Your task to perform on an android device: turn off notifications in google photos Image 0: 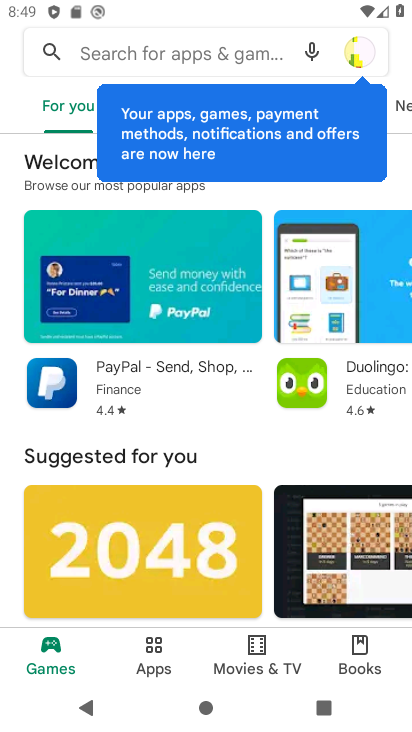
Step 0: press home button
Your task to perform on an android device: turn off notifications in google photos Image 1: 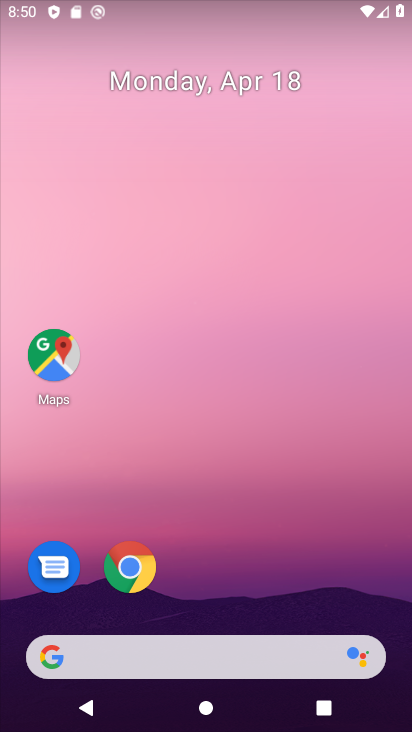
Step 1: drag from (207, 403) to (202, 40)
Your task to perform on an android device: turn off notifications in google photos Image 2: 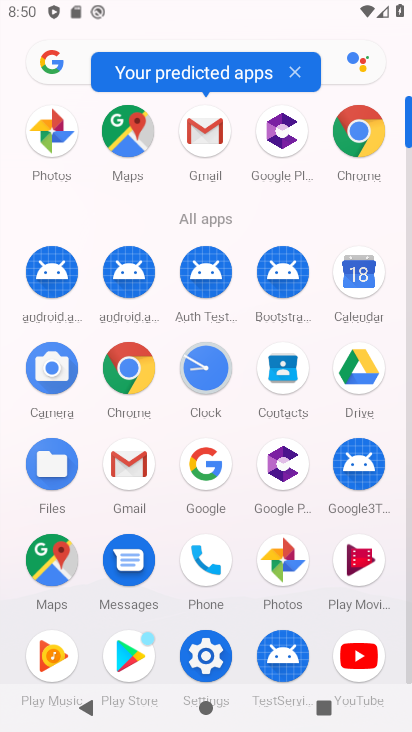
Step 2: click (289, 564)
Your task to perform on an android device: turn off notifications in google photos Image 3: 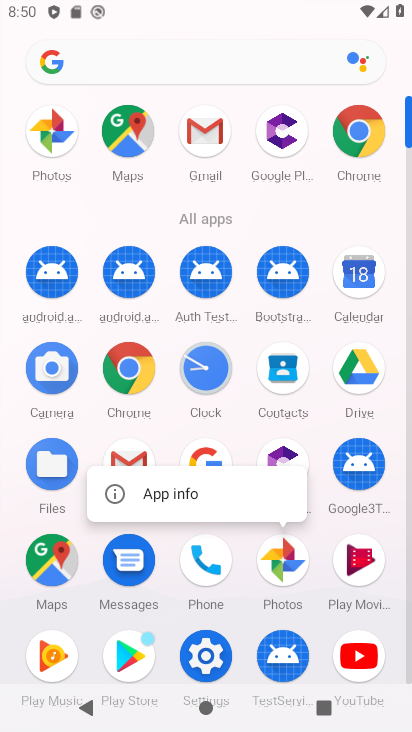
Step 3: click (289, 563)
Your task to perform on an android device: turn off notifications in google photos Image 4: 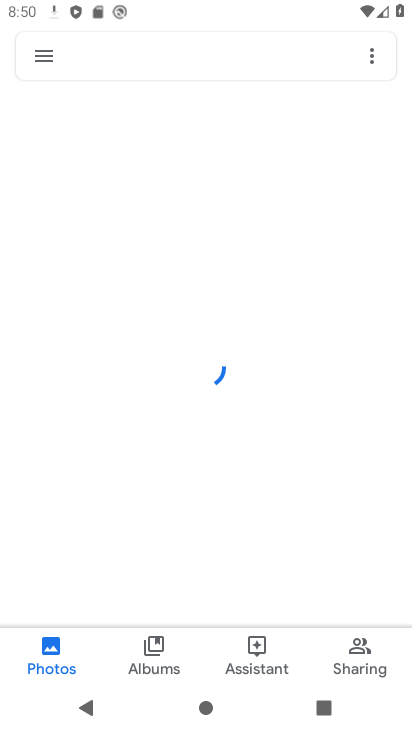
Step 4: click (49, 54)
Your task to perform on an android device: turn off notifications in google photos Image 5: 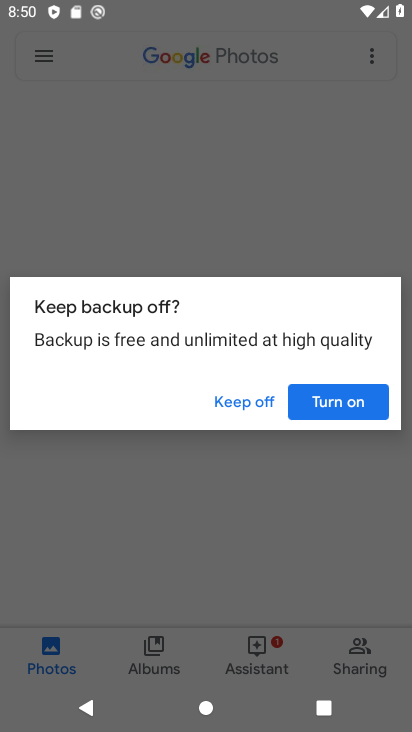
Step 5: click (325, 405)
Your task to perform on an android device: turn off notifications in google photos Image 6: 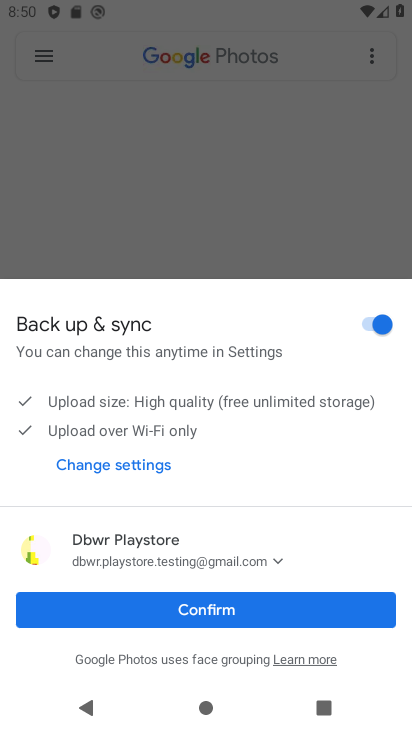
Step 6: click (251, 603)
Your task to perform on an android device: turn off notifications in google photos Image 7: 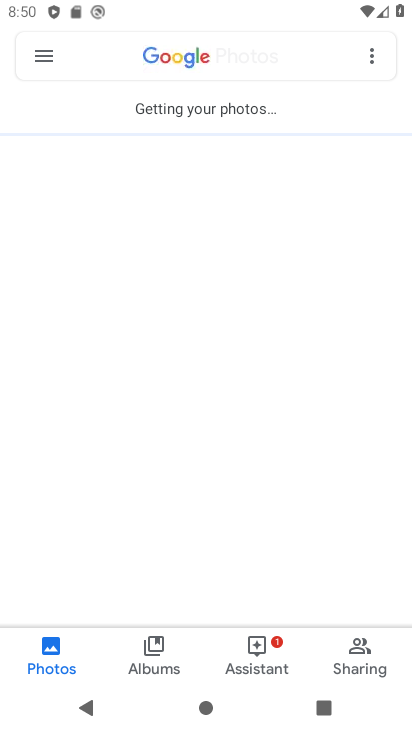
Step 7: click (39, 53)
Your task to perform on an android device: turn off notifications in google photos Image 8: 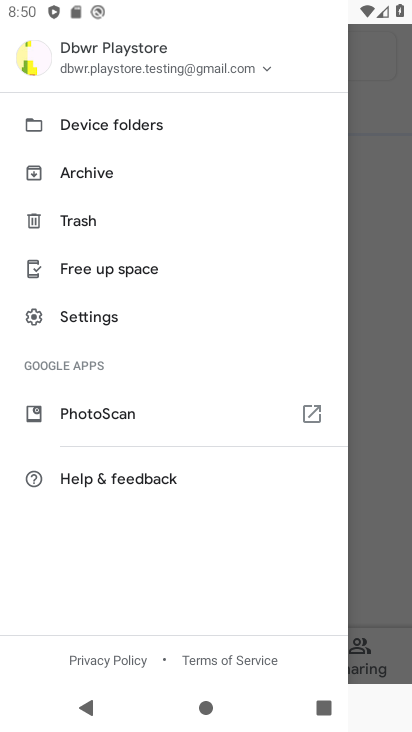
Step 8: click (103, 316)
Your task to perform on an android device: turn off notifications in google photos Image 9: 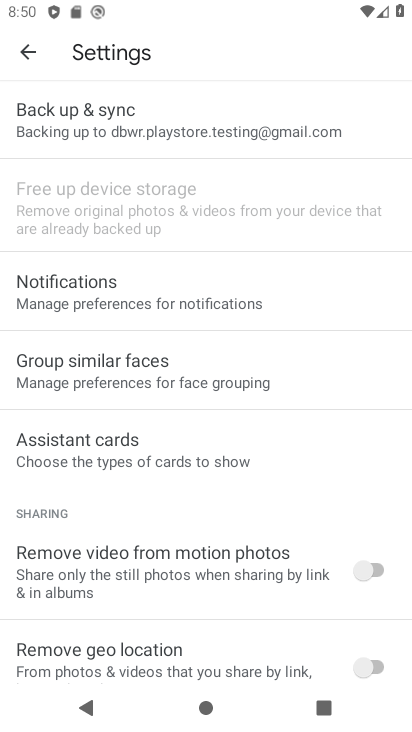
Step 9: click (122, 301)
Your task to perform on an android device: turn off notifications in google photos Image 10: 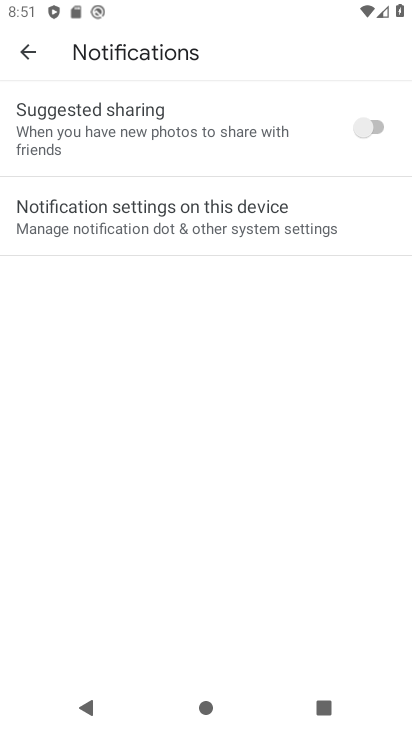
Step 10: click (252, 229)
Your task to perform on an android device: turn off notifications in google photos Image 11: 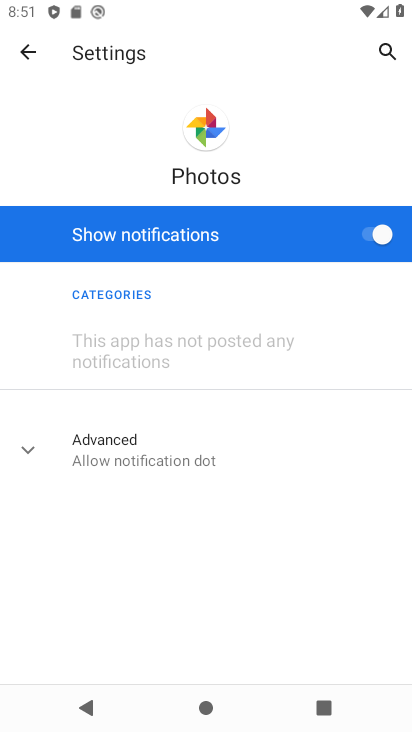
Step 11: click (371, 238)
Your task to perform on an android device: turn off notifications in google photos Image 12: 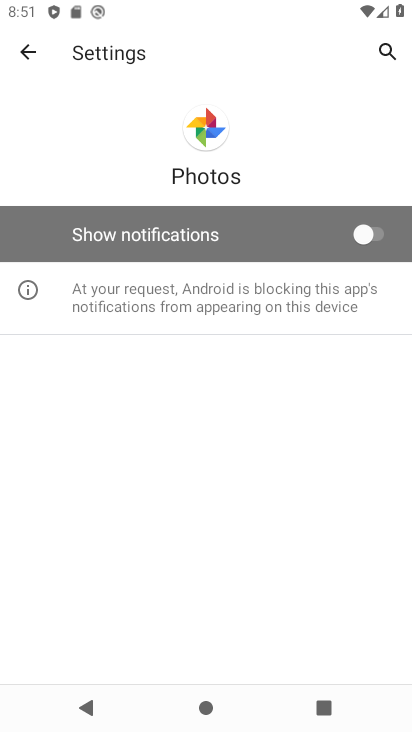
Step 12: task complete